Your task to perform on an android device: change notification settings in the gmail app Image 0: 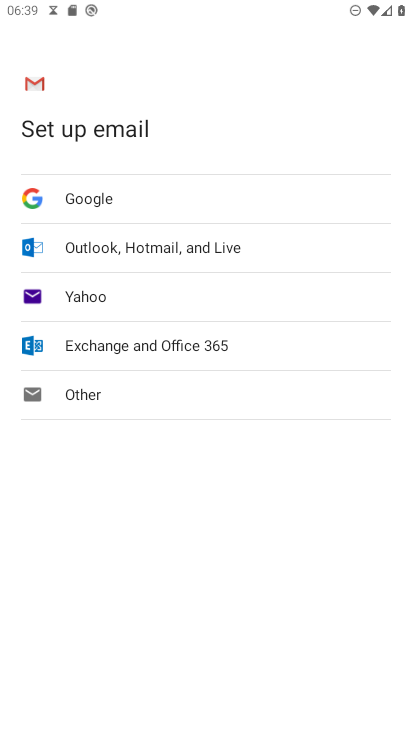
Step 0: press home button
Your task to perform on an android device: change notification settings in the gmail app Image 1: 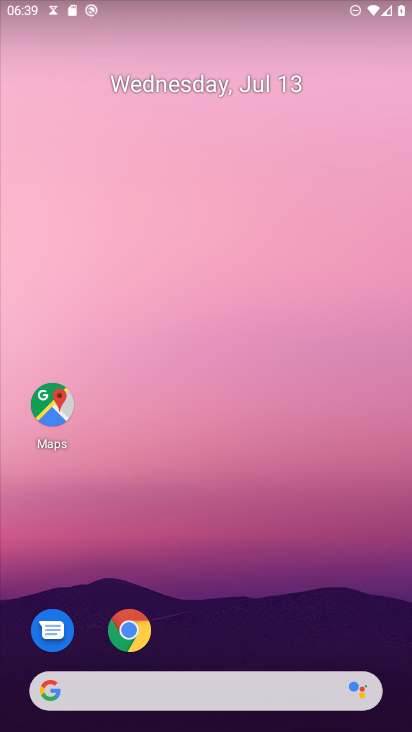
Step 1: drag from (105, 704) to (217, 32)
Your task to perform on an android device: change notification settings in the gmail app Image 2: 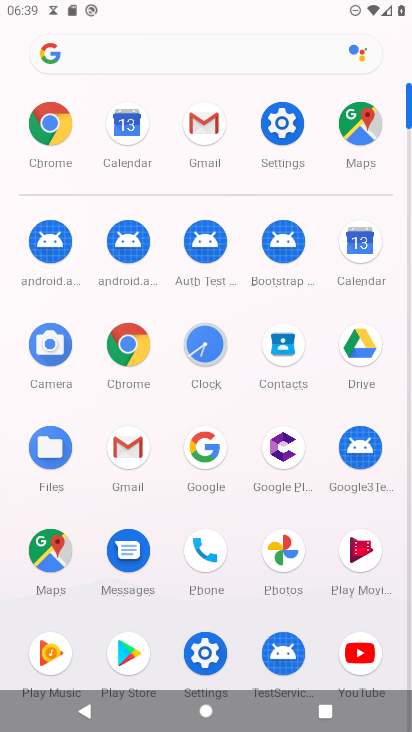
Step 2: click (136, 436)
Your task to perform on an android device: change notification settings in the gmail app Image 3: 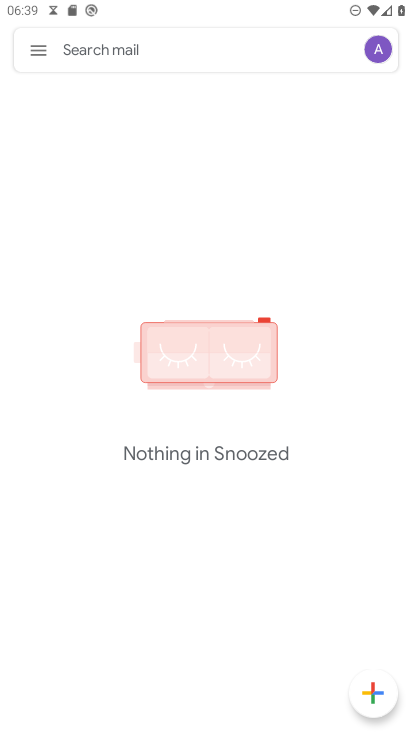
Step 3: click (44, 48)
Your task to perform on an android device: change notification settings in the gmail app Image 4: 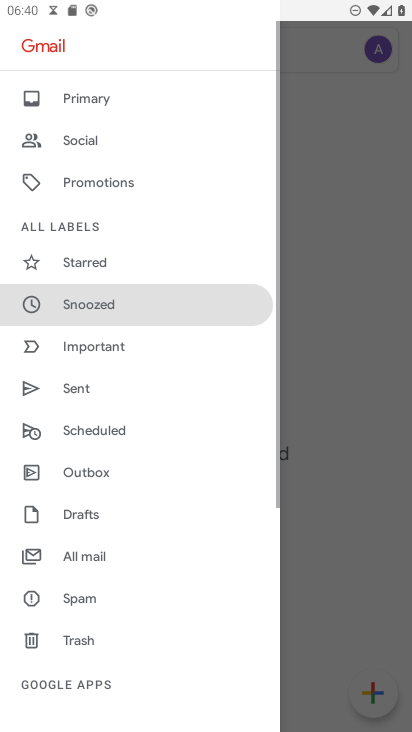
Step 4: drag from (153, 642) to (153, 85)
Your task to perform on an android device: change notification settings in the gmail app Image 5: 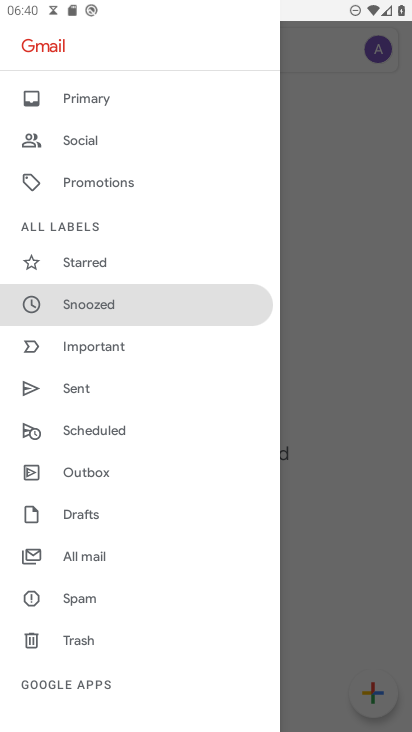
Step 5: drag from (180, 219) to (192, 135)
Your task to perform on an android device: change notification settings in the gmail app Image 6: 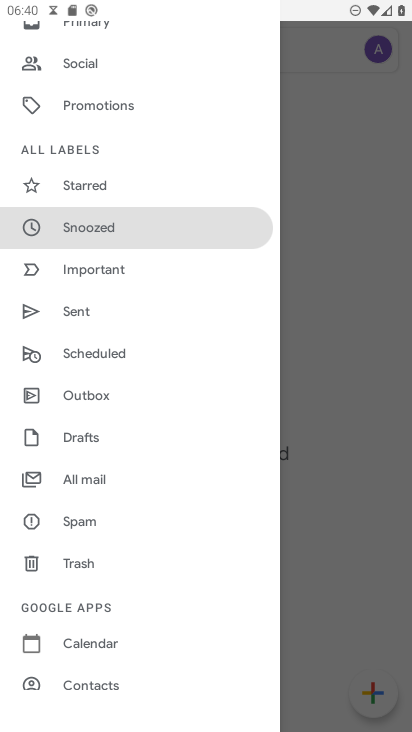
Step 6: drag from (107, 609) to (142, 200)
Your task to perform on an android device: change notification settings in the gmail app Image 7: 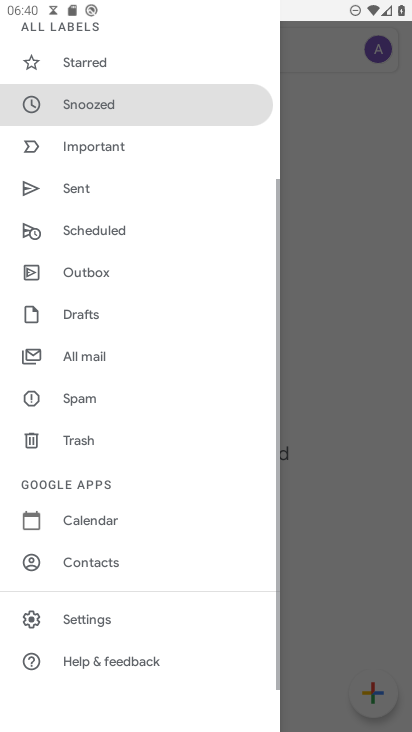
Step 7: click (100, 623)
Your task to perform on an android device: change notification settings in the gmail app Image 8: 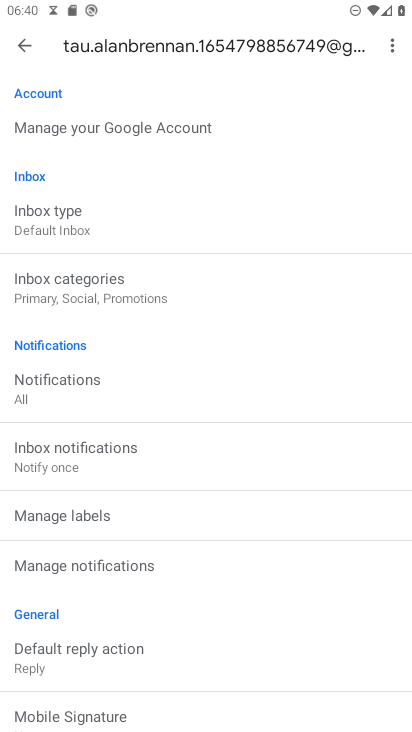
Step 8: click (125, 570)
Your task to perform on an android device: change notification settings in the gmail app Image 9: 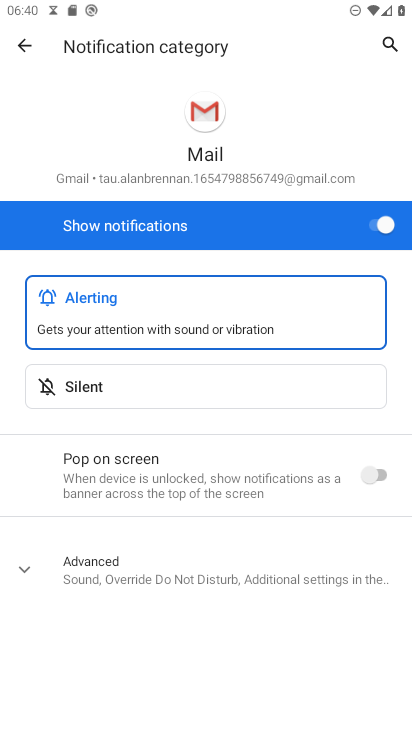
Step 9: click (378, 231)
Your task to perform on an android device: change notification settings in the gmail app Image 10: 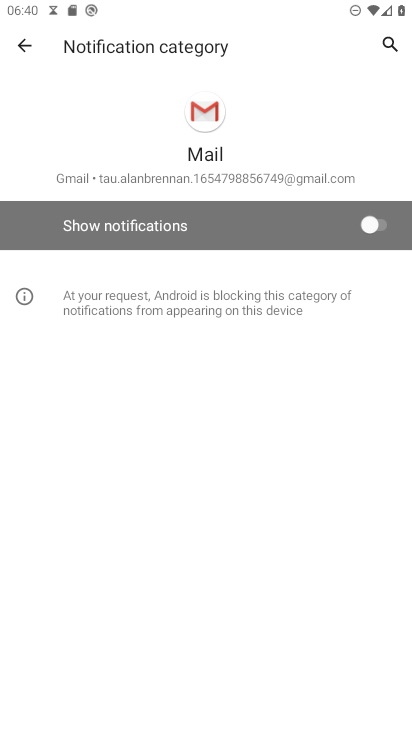
Step 10: task complete